Your task to perform on an android device: Open the map Image 0: 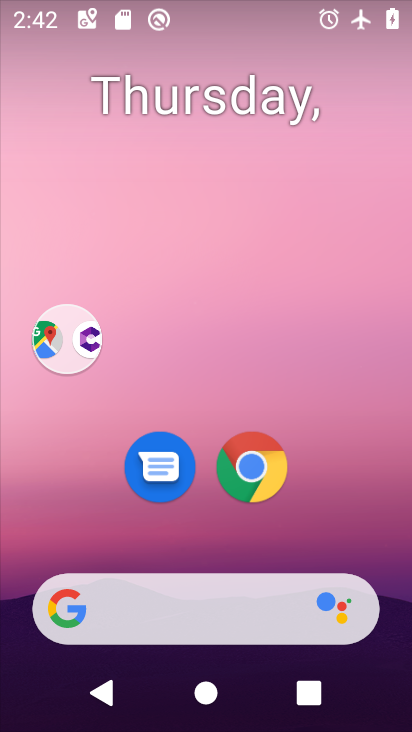
Step 0: drag from (223, 533) to (191, 1)
Your task to perform on an android device: Open the map Image 1: 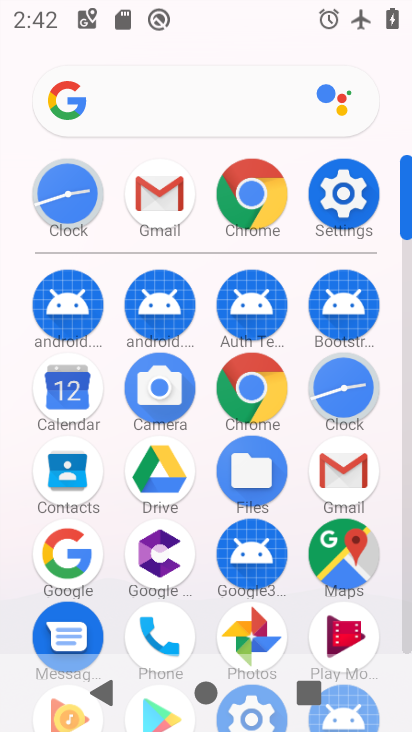
Step 1: click (350, 534)
Your task to perform on an android device: Open the map Image 2: 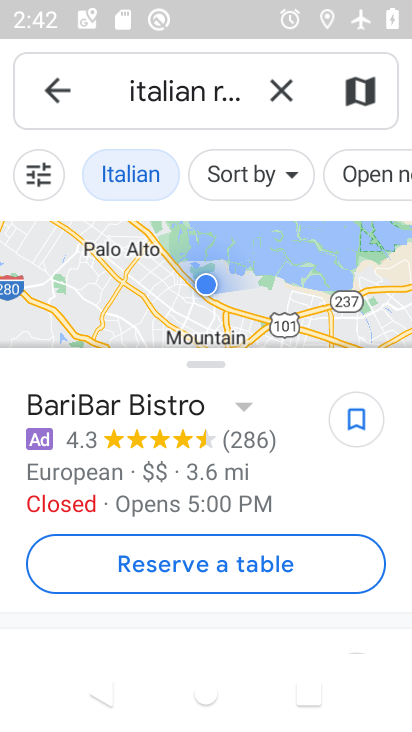
Step 2: task complete